Your task to perform on an android device: Find coffee shops on Maps Image 0: 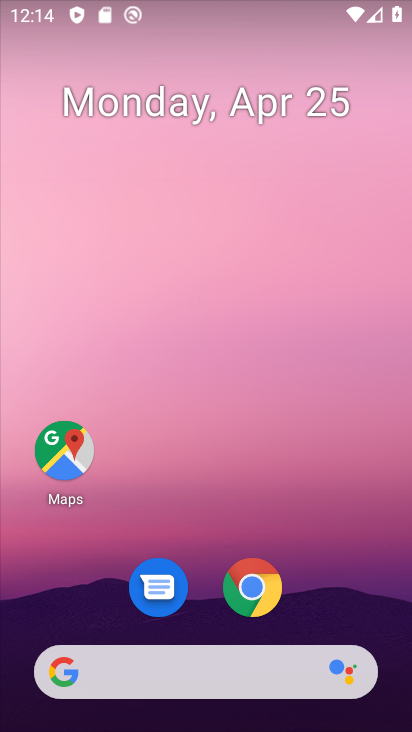
Step 0: drag from (207, 233) to (164, 126)
Your task to perform on an android device: Find coffee shops on Maps Image 1: 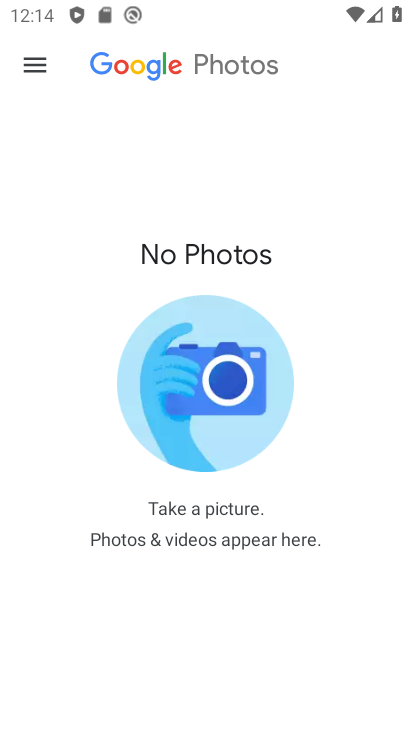
Step 1: press home button
Your task to perform on an android device: Find coffee shops on Maps Image 2: 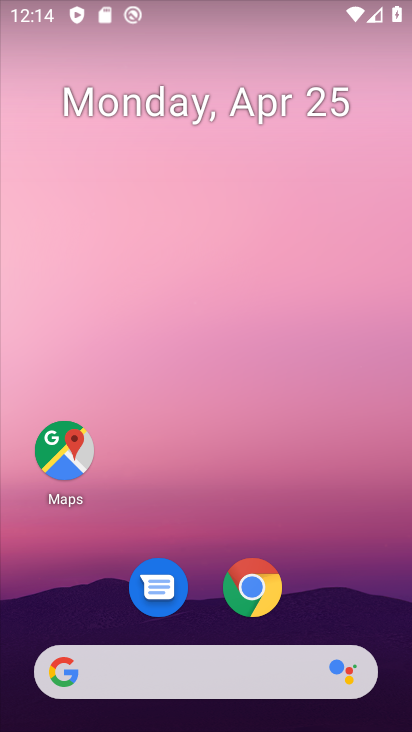
Step 2: drag from (348, 588) to (238, 63)
Your task to perform on an android device: Find coffee shops on Maps Image 3: 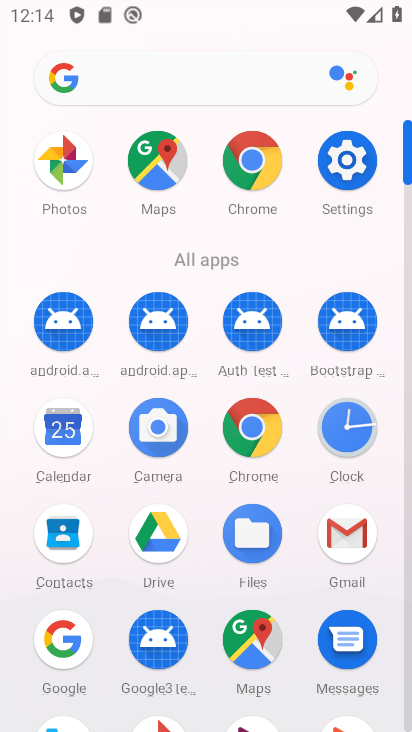
Step 3: click (152, 148)
Your task to perform on an android device: Find coffee shops on Maps Image 4: 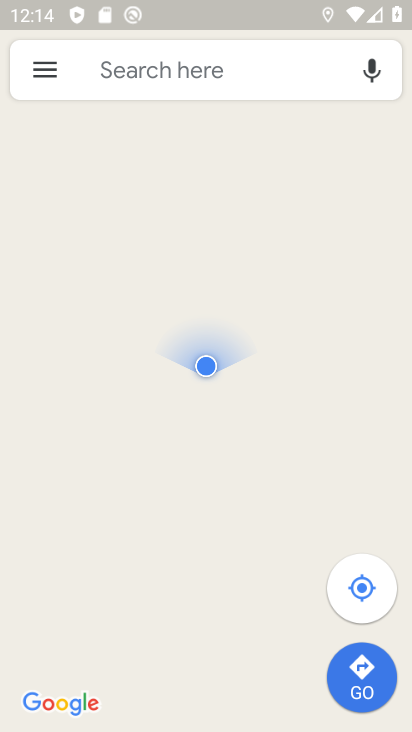
Step 4: click (191, 55)
Your task to perform on an android device: Find coffee shops on Maps Image 5: 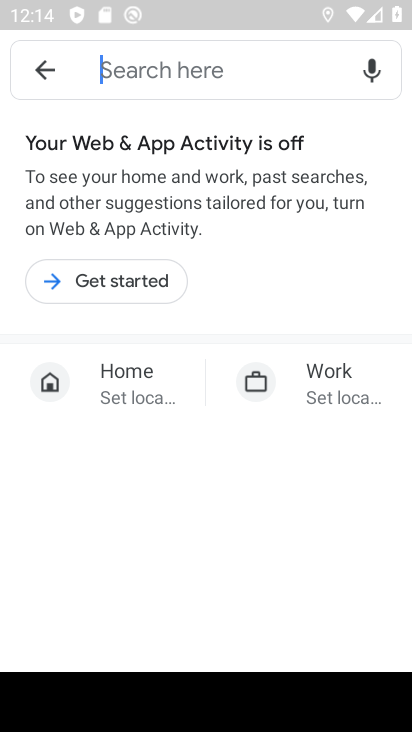
Step 5: type "coffee shops"
Your task to perform on an android device: Find coffee shops on Maps Image 6: 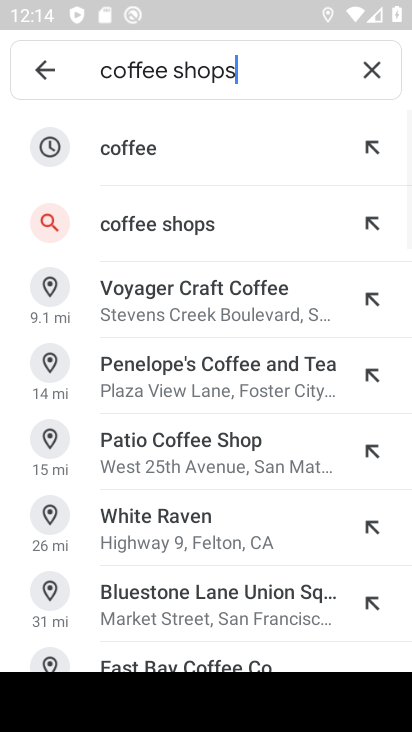
Step 6: click (252, 218)
Your task to perform on an android device: Find coffee shops on Maps Image 7: 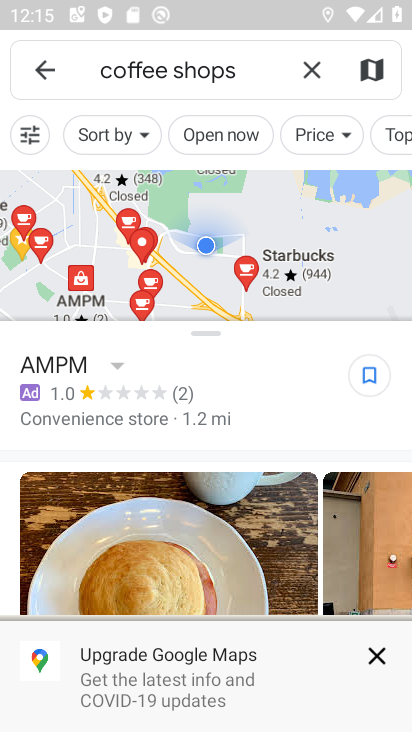
Step 7: task complete